Your task to perform on an android device: Open CNN.com Image 0: 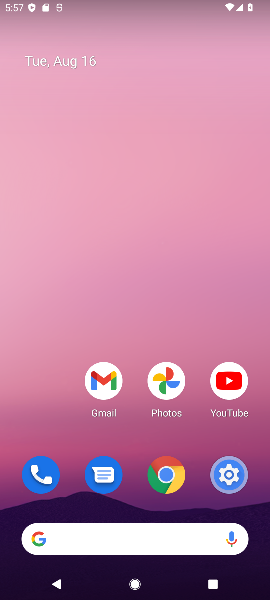
Step 0: drag from (250, 455) to (191, 126)
Your task to perform on an android device: Open CNN.com Image 1: 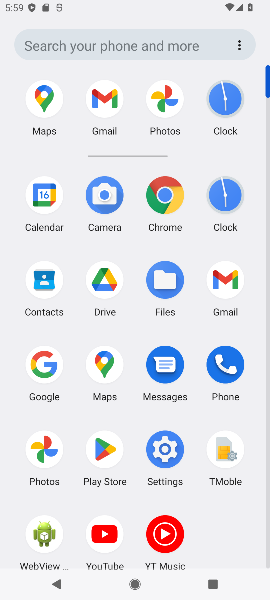
Step 1: click (49, 366)
Your task to perform on an android device: Open CNN.com Image 2: 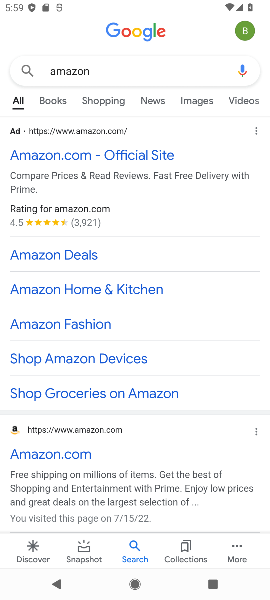
Step 2: press back button
Your task to perform on an android device: Open CNN.com Image 3: 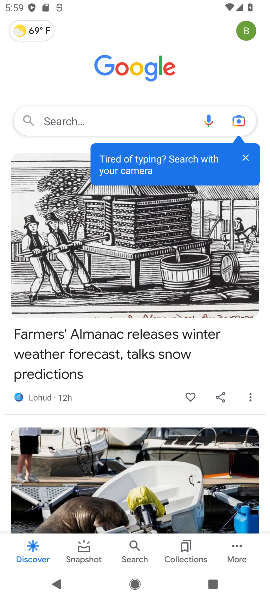
Step 3: click (95, 124)
Your task to perform on an android device: Open CNN.com Image 4: 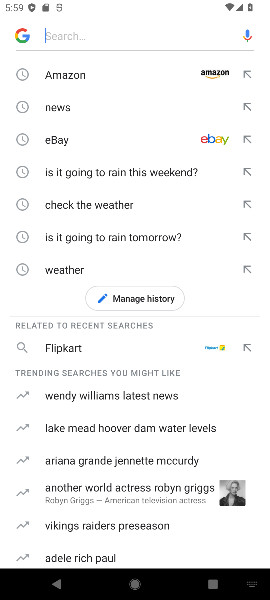
Step 4: type "CNN.com"
Your task to perform on an android device: Open CNN.com Image 5: 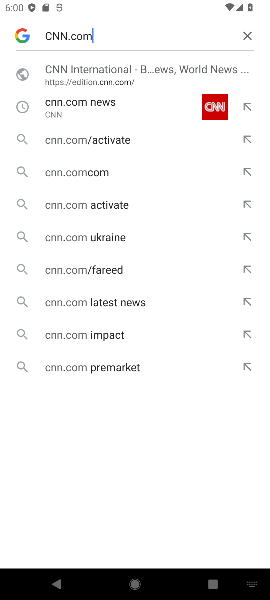
Step 5: click (101, 84)
Your task to perform on an android device: Open CNN.com Image 6: 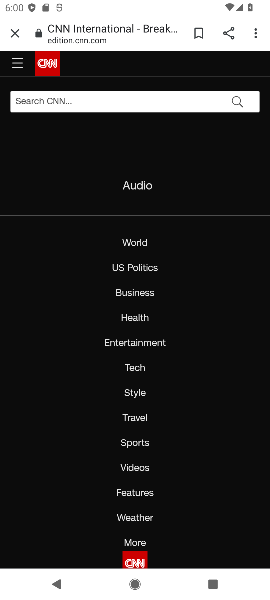
Step 6: task complete